Your task to perform on an android device: Open Wikipedia Image 0: 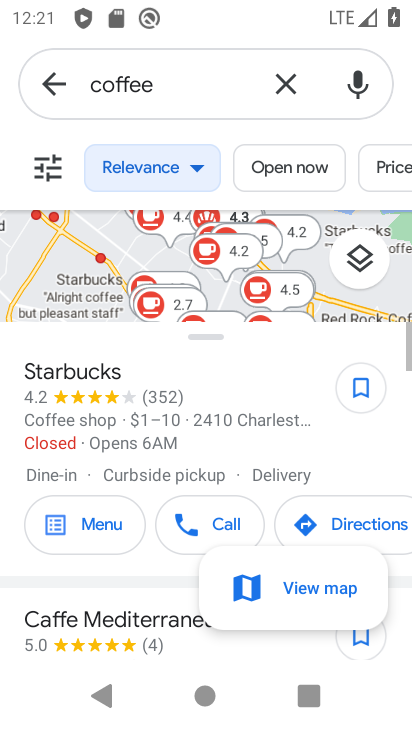
Step 0: press home button
Your task to perform on an android device: Open Wikipedia Image 1: 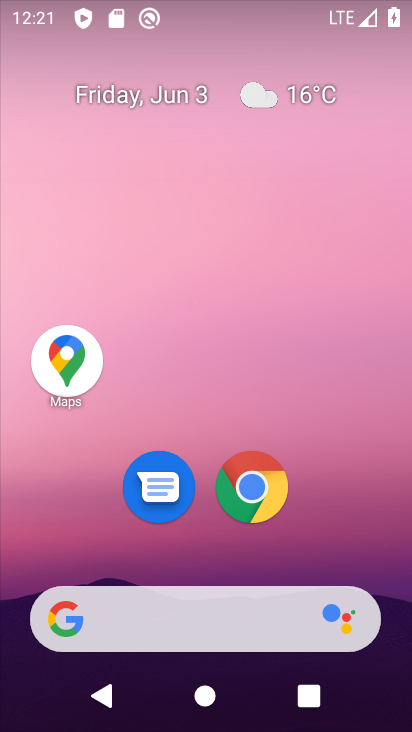
Step 1: click (175, 615)
Your task to perform on an android device: Open Wikipedia Image 2: 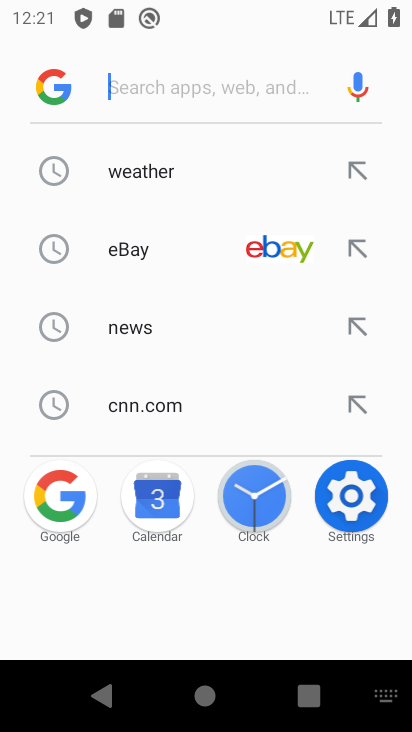
Step 2: type "Wikipedia"
Your task to perform on an android device: Open Wikipedia Image 3: 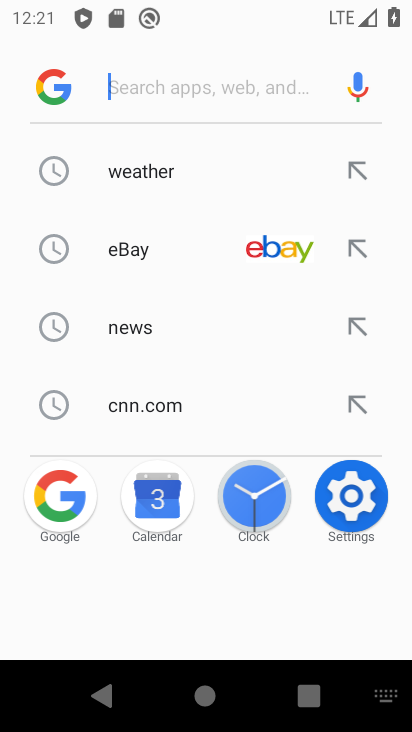
Step 3: click (133, 87)
Your task to perform on an android device: Open Wikipedia Image 4: 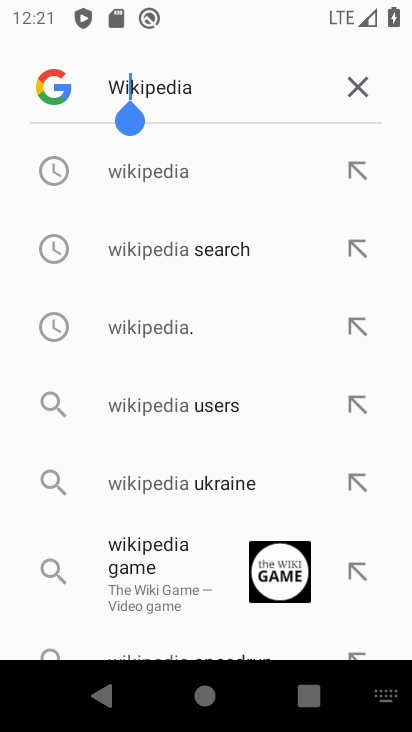
Step 4: click (180, 168)
Your task to perform on an android device: Open Wikipedia Image 5: 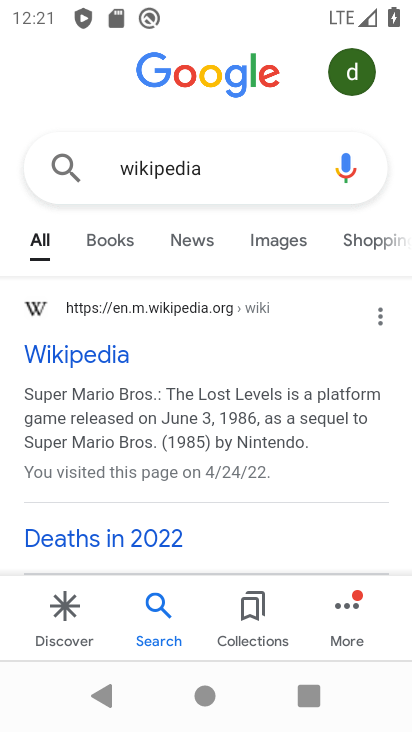
Step 5: click (69, 350)
Your task to perform on an android device: Open Wikipedia Image 6: 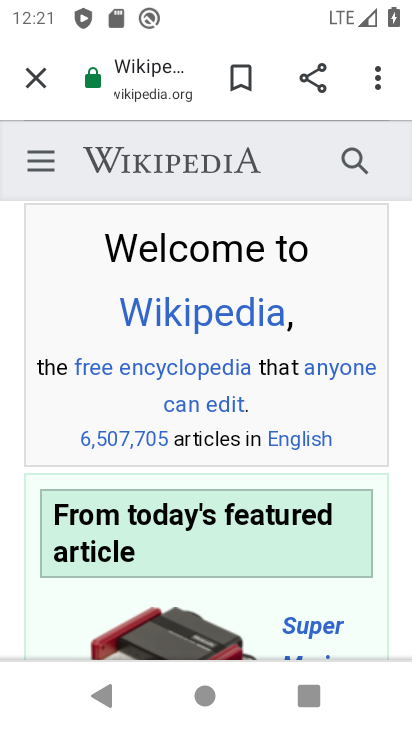
Step 6: task complete